Your task to perform on an android device: Open internet settings Image 0: 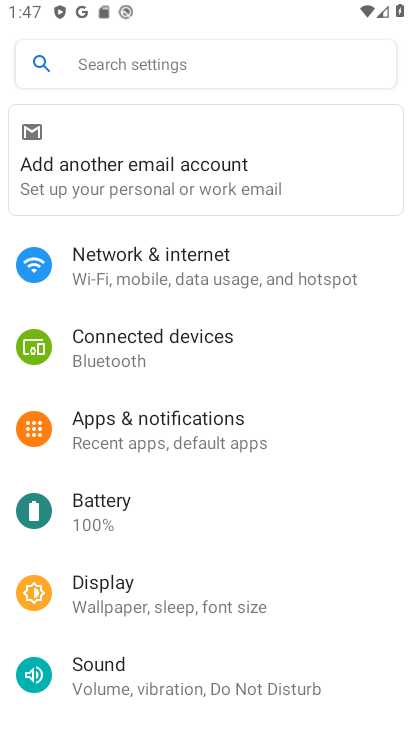
Step 0: click (266, 270)
Your task to perform on an android device: Open internet settings Image 1: 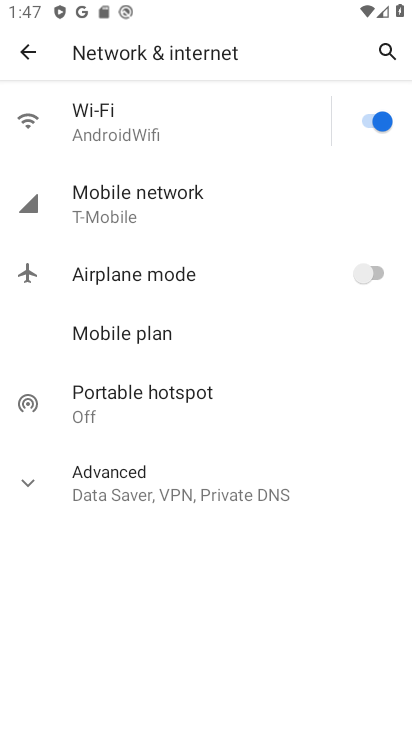
Step 1: task complete